Your task to perform on an android device: Play the last video I watched on Youtube Image 0: 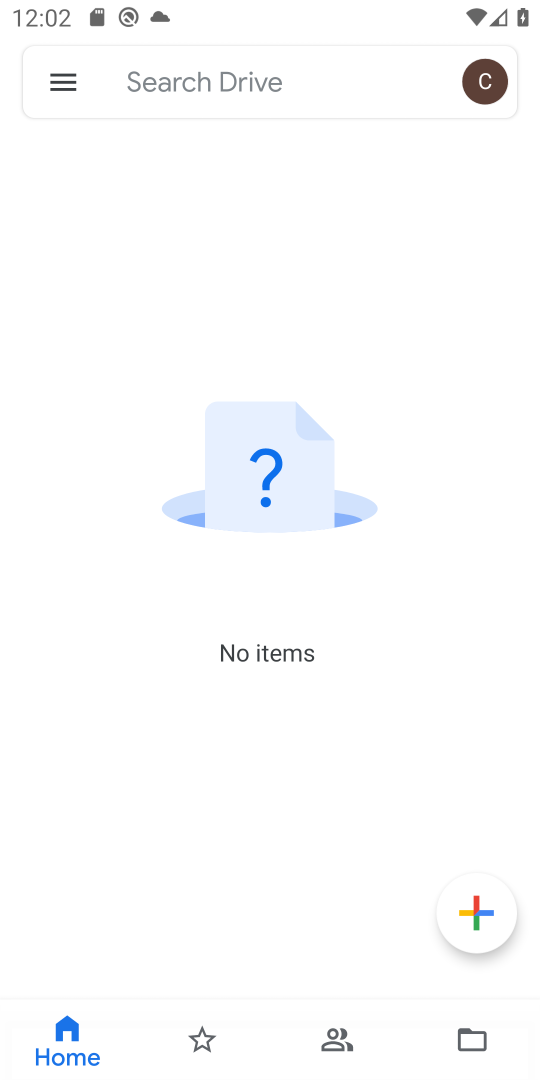
Step 0: press home button
Your task to perform on an android device: Play the last video I watched on Youtube Image 1: 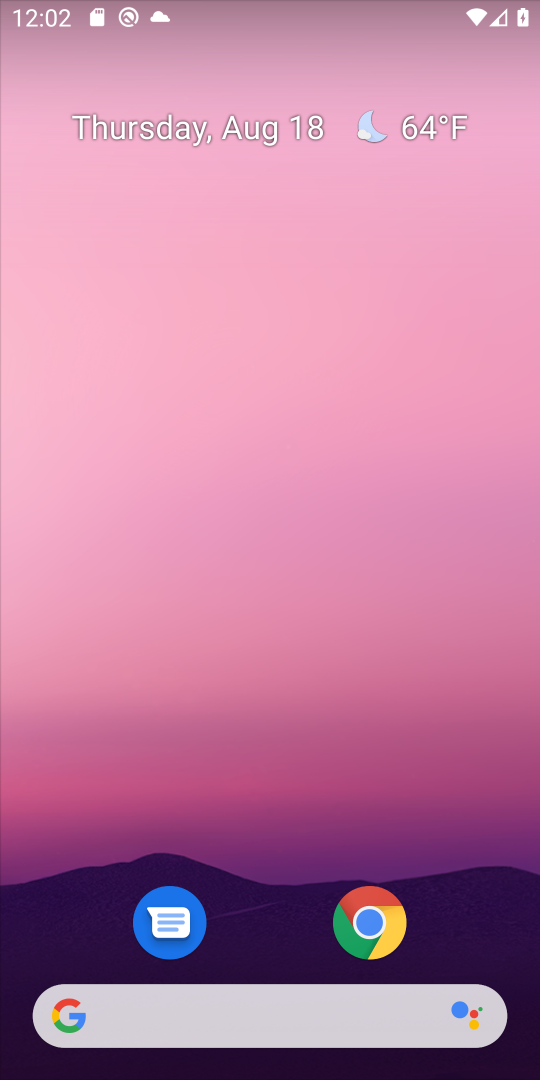
Step 1: drag from (275, 943) to (293, 151)
Your task to perform on an android device: Play the last video I watched on Youtube Image 2: 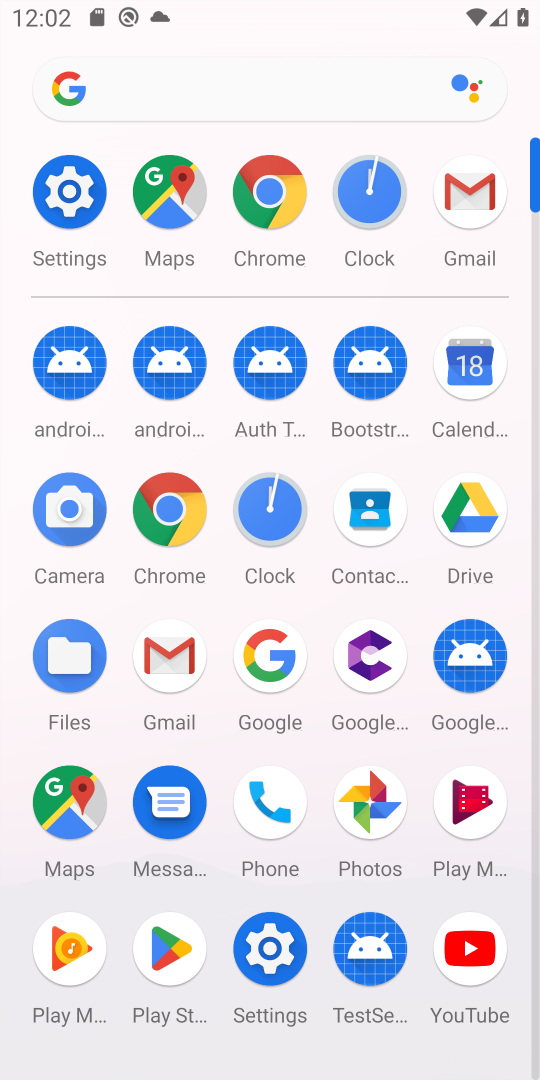
Step 2: click (481, 948)
Your task to perform on an android device: Play the last video I watched on Youtube Image 3: 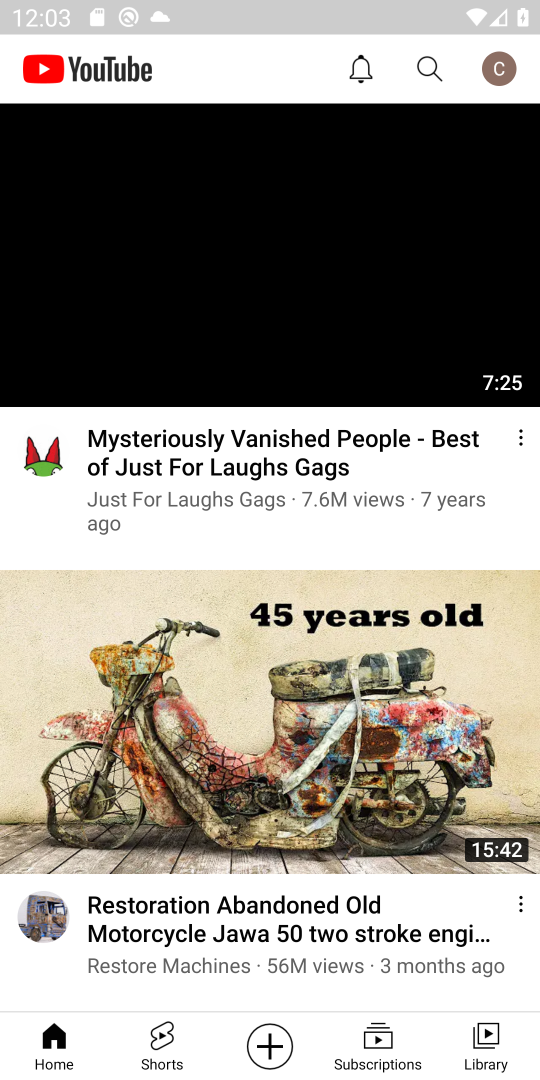
Step 3: click (488, 1027)
Your task to perform on an android device: Play the last video I watched on Youtube Image 4: 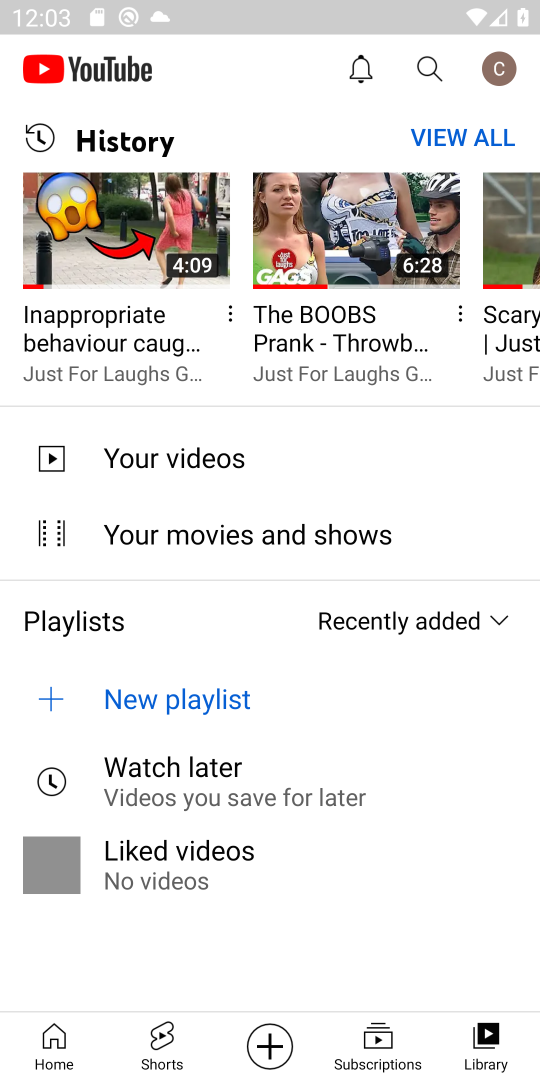
Step 4: click (128, 252)
Your task to perform on an android device: Play the last video I watched on Youtube Image 5: 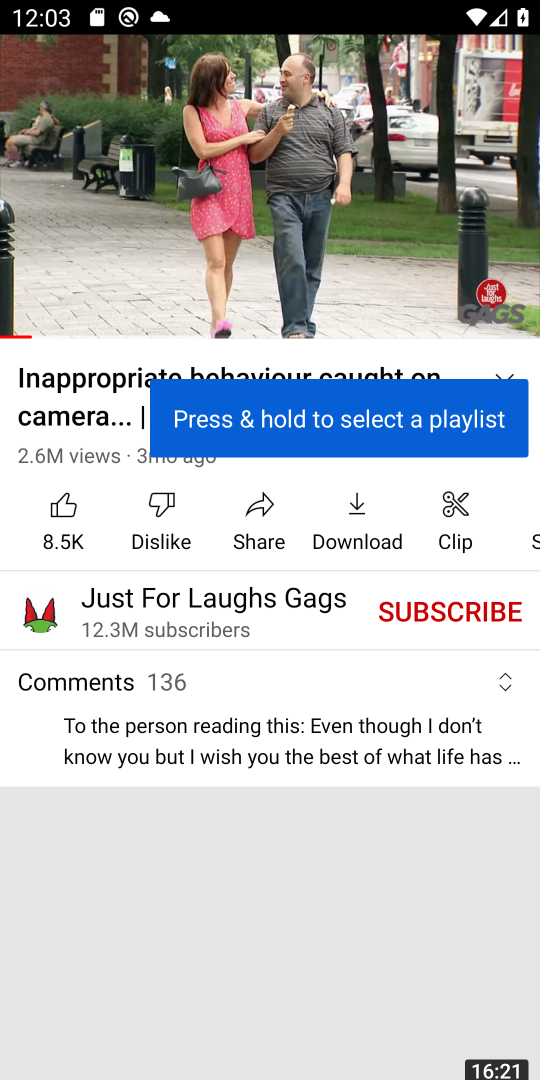
Step 5: task complete